Your task to perform on an android device: turn off smart reply in the gmail app Image 0: 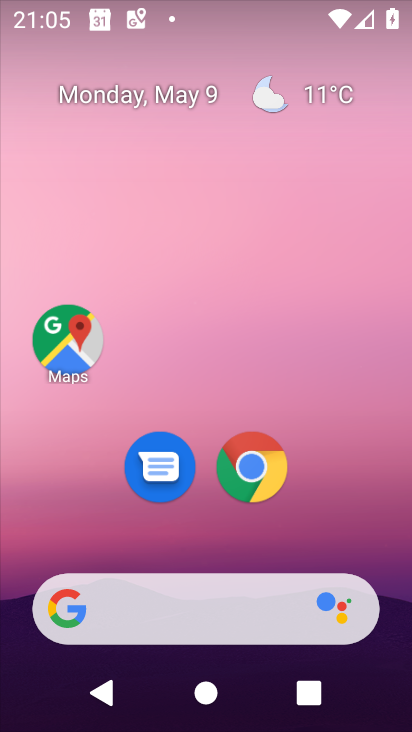
Step 0: drag from (298, 401) to (298, 236)
Your task to perform on an android device: turn off smart reply in the gmail app Image 1: 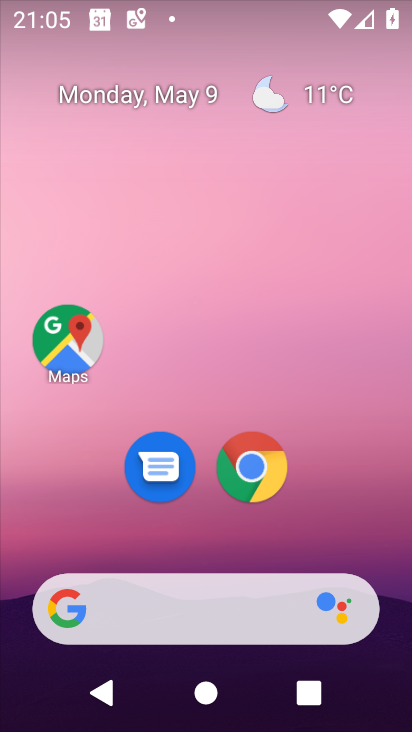
Step 1: drag from (317, 523) to (314, 129)
Your task to perform on an android device: turn off smart reply in the gmail app Image 2: 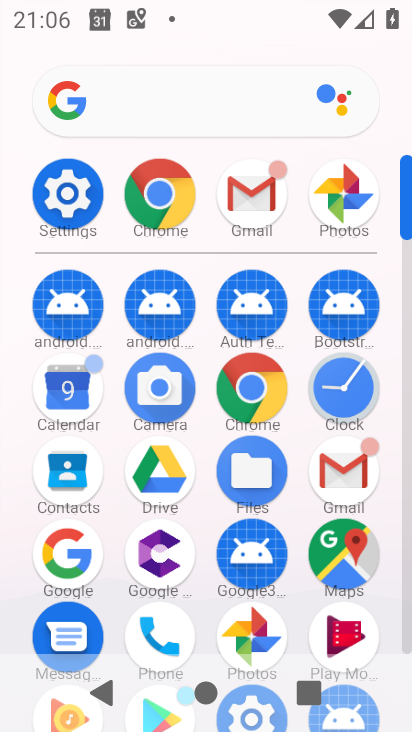
Step 2: click (237, 185)
Your task to perform on an android device: turn off smart reply in the gmail app Image 3: 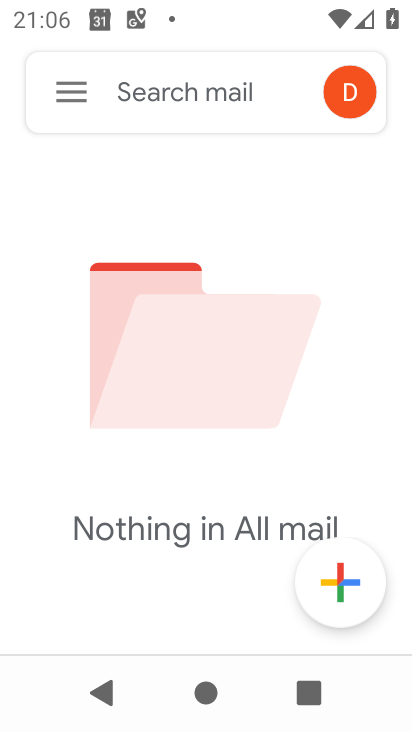
Step 3: click (65, 95)
Your task to perform on an android device: turn off smart reply in the gmail app Image 4: 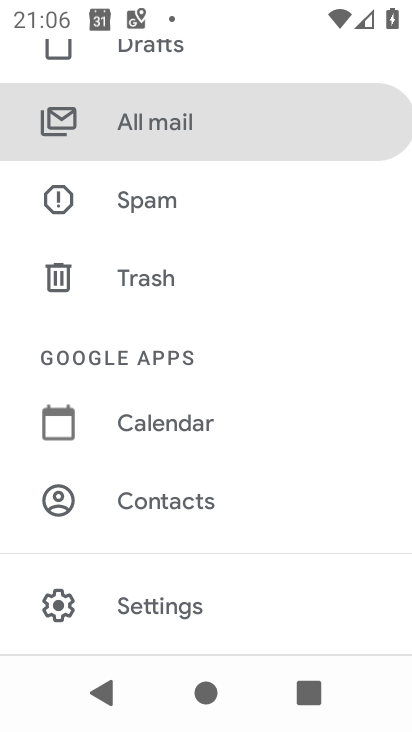
Step 4: click (177, 591)
Your task to perform on an android device: turn off smart reply in the gmail app Image 5: 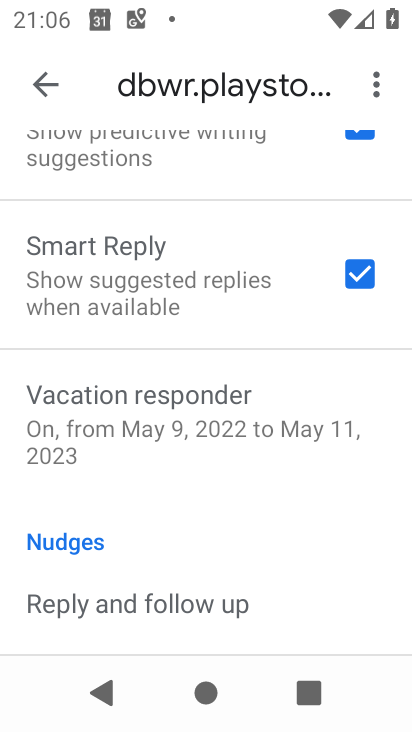
Step 5: click (370, 271)
Your task to perform on an android device: turn off smart reply in the gmail app Image 6: 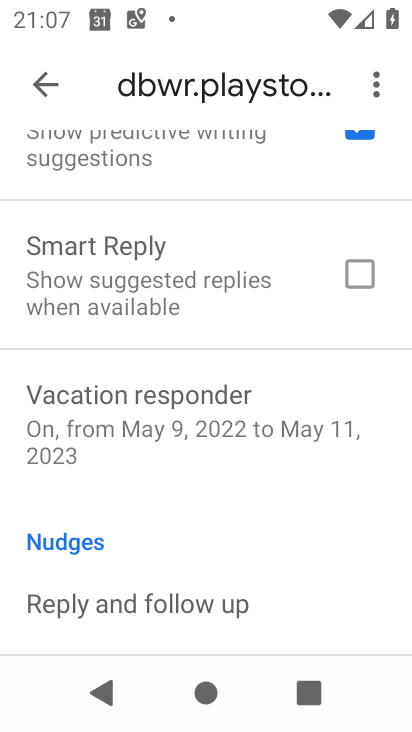
Step 6: task complete